Your task to perform on an android device: Clear the shopping cart on target.com. Search for logitech g pro on target.com, select the first entry, and add it to the cart. Image 0: 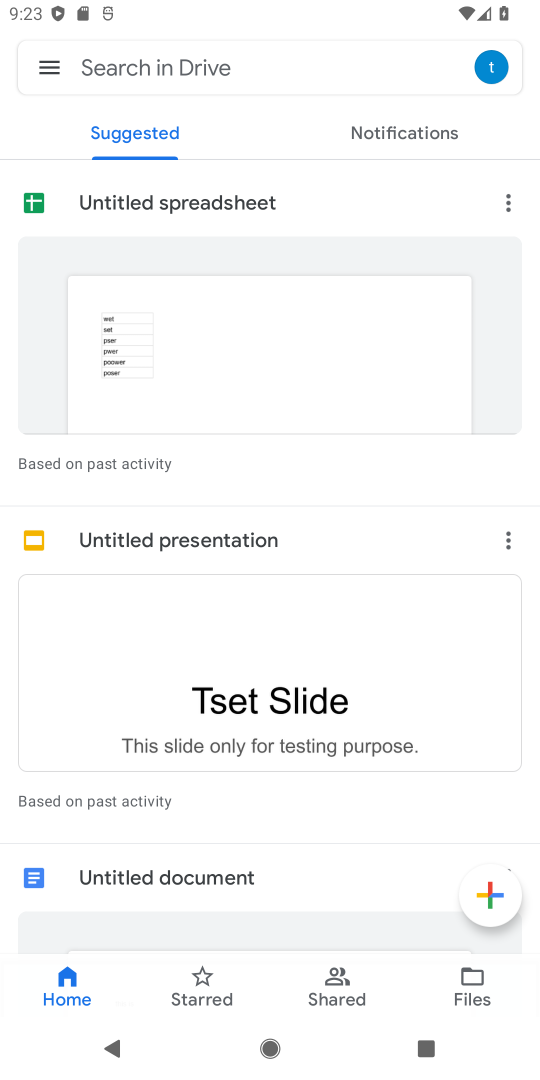
Step 0: press home button
Your task to perform on an android device: Clear the shopping cart on target.com. Search for logitech g pro on target.com, select the first entry, and add it to the cart. Image 1: 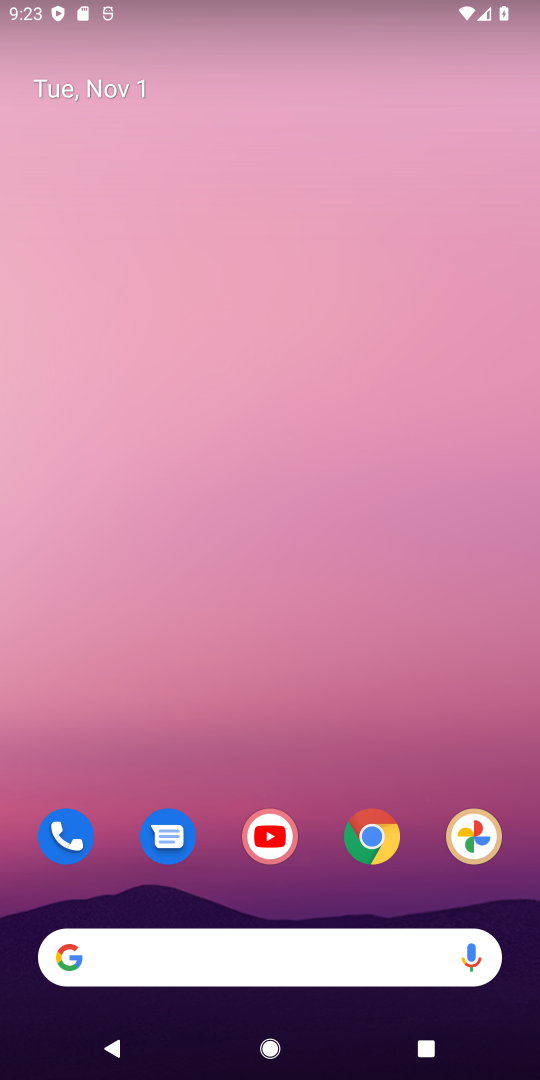
Step 1: click (381, 837)
Your task to perform on an android device: Clear the shopping cart on target.com. Search for logitech g pro on target.com, select the first entry, and add it to the cart. Image 2: 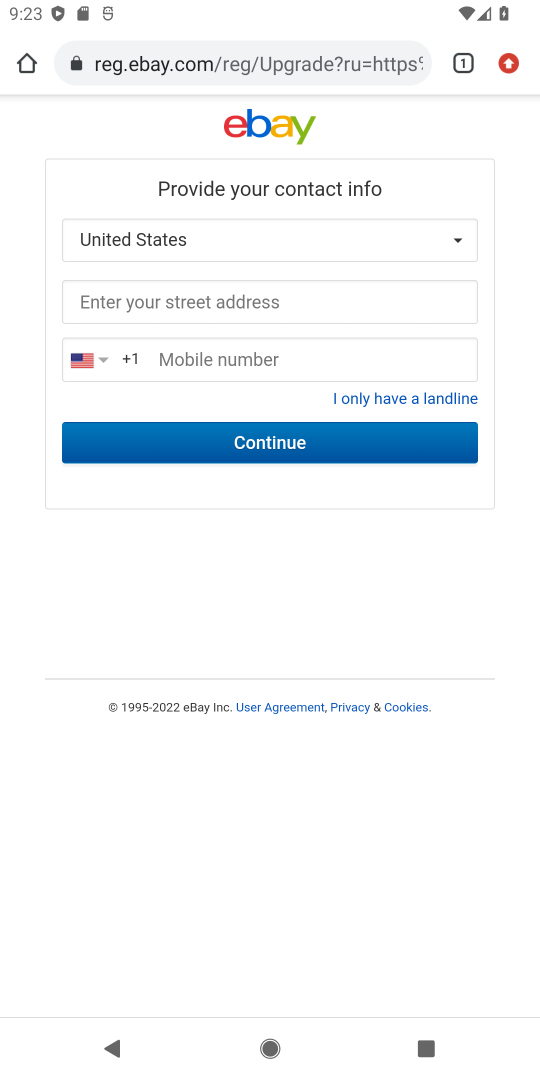
Step 2: click (177, 59)
Your task to perform on an android device: Clear the shopping cart on target.com. Search for logitech g pro on target.com, select the first entry, and add it to the cart. Image 3: 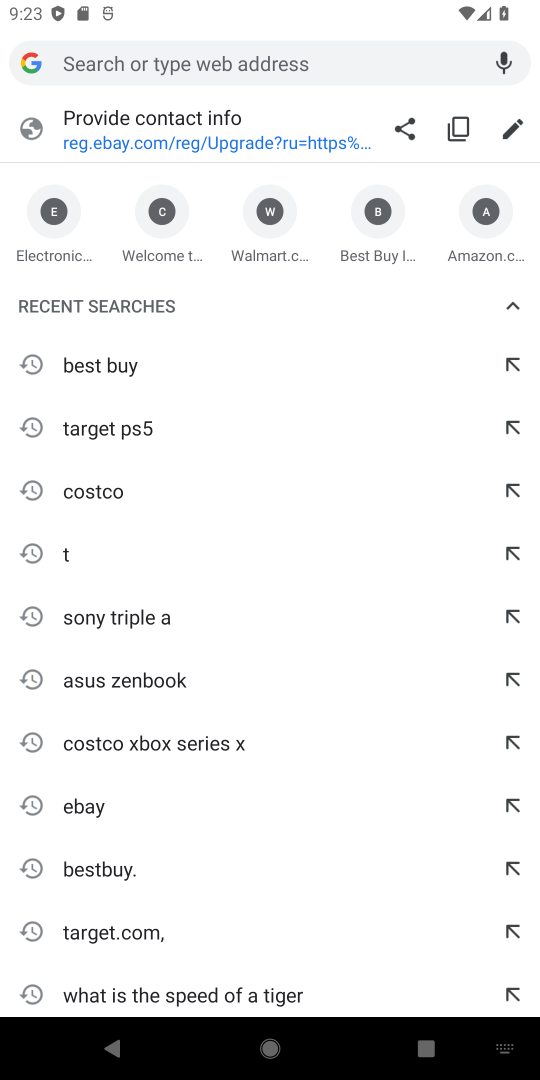
Step 3: type "target.com"
Your task to perform on an android device: Clear the shopping cart on target.com. Search for logitech g pro on target.com, select the first entry, and add it to the cart. Image 4: 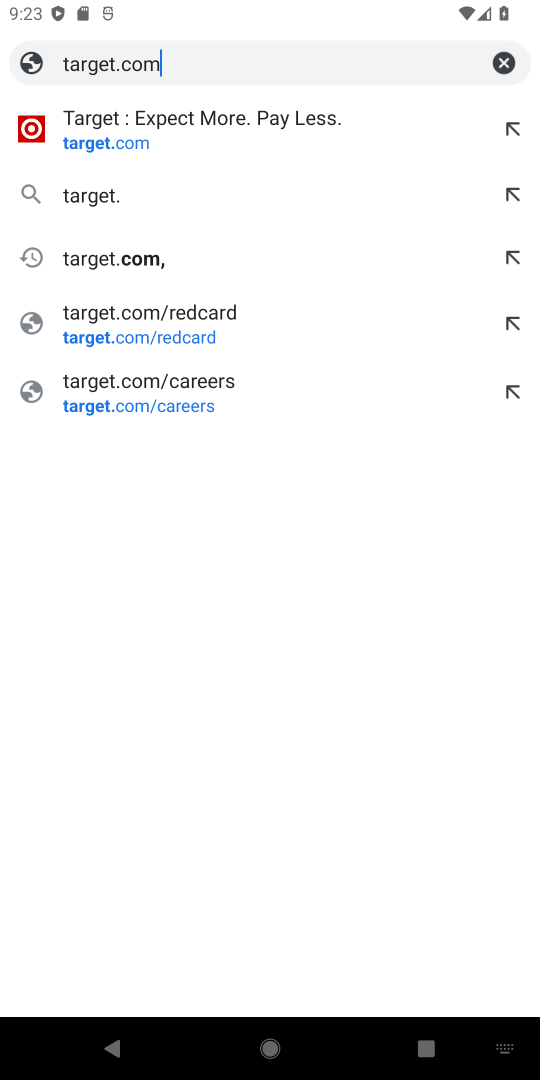
Step 4: type ""
Your task to perform on an android device: Clear the shopping cart on target.com. Search for logitech g pro on target.com, select the first entry, and add it to the cart. Image 5: 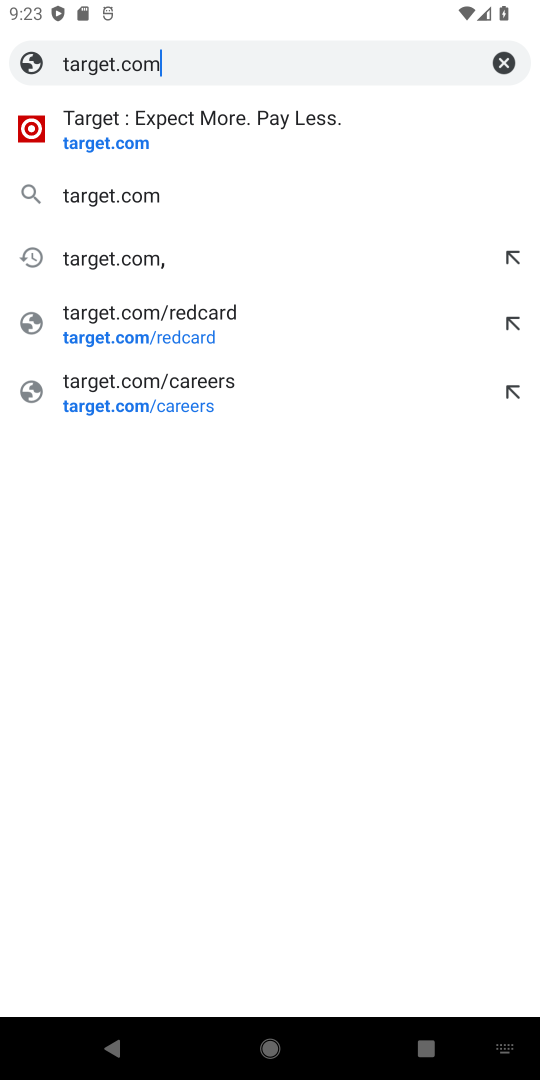
Step 5: click (260, 130)
Your task to perform on an android device: Clear the shopping cart on target.com. Search for logitech g pro on target.com, select the first entry, and add it to the cart. Image 6: 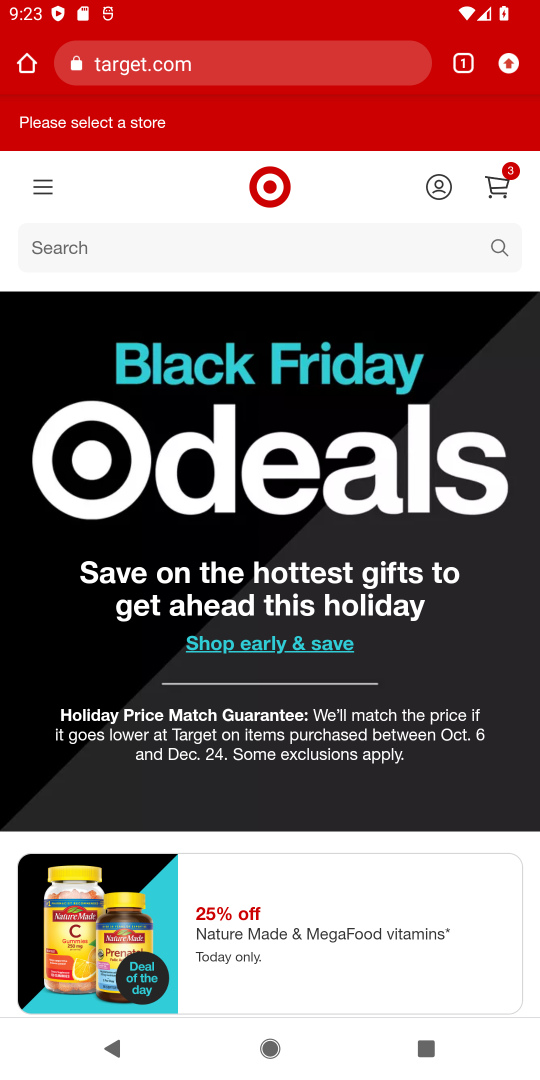
Step 6: click (362, 240)
Your task to perform on an android device: Clear the shopping cart on target.com. Search for logitech g pro on target.com, select the first entry, and add it to the cart. Image 7: 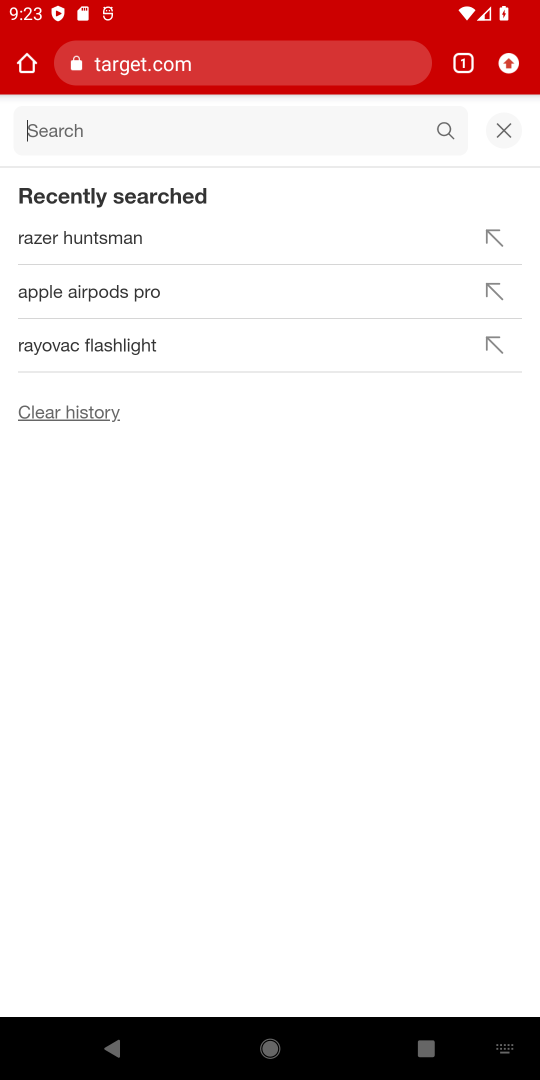
Step 7: type " logitech g pro"
Your task to perform on an android device: Clear the shopping cart on target.com. Search for logitech g pro on target.com, select the first entry, and add it to the cart. Image 8: 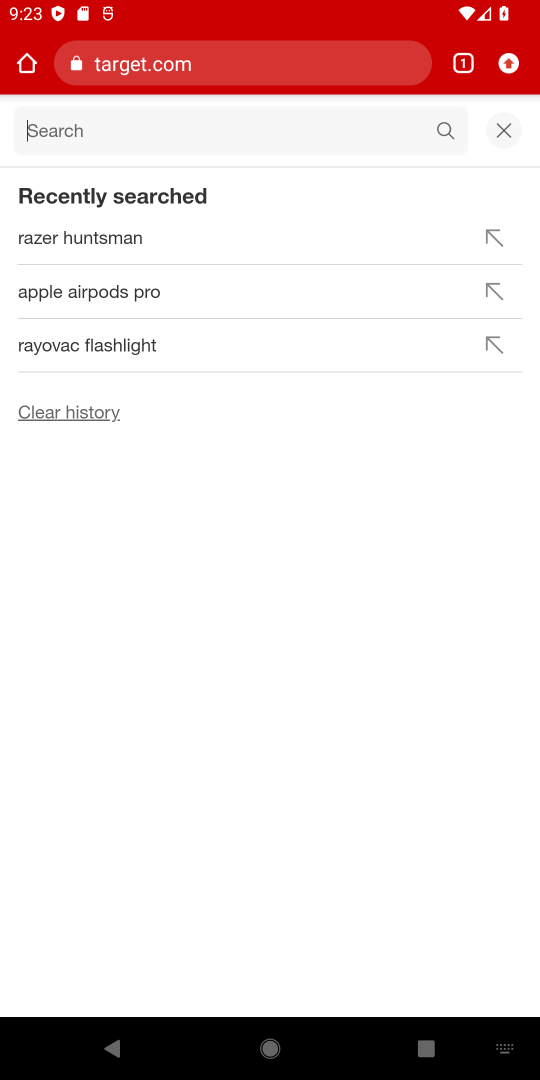
Step 8: type ""
Your task to perform on an android device: Clear the shopping cart on target.com. Search for logitech g pro on target.com, select the first entry, and add it to the cart. Image 9: 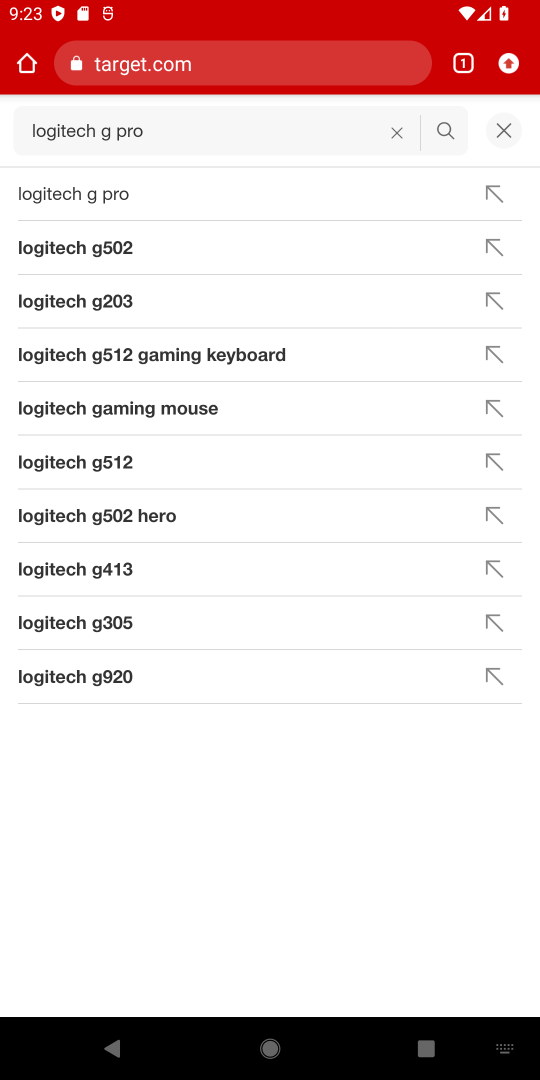
Step 9: click (91, 202)
Your task to perform on an android device: Clear the shopping cart on target.com. Search for logitech g pro on target.com, select the first entry, and add it to the cart. Image 10: 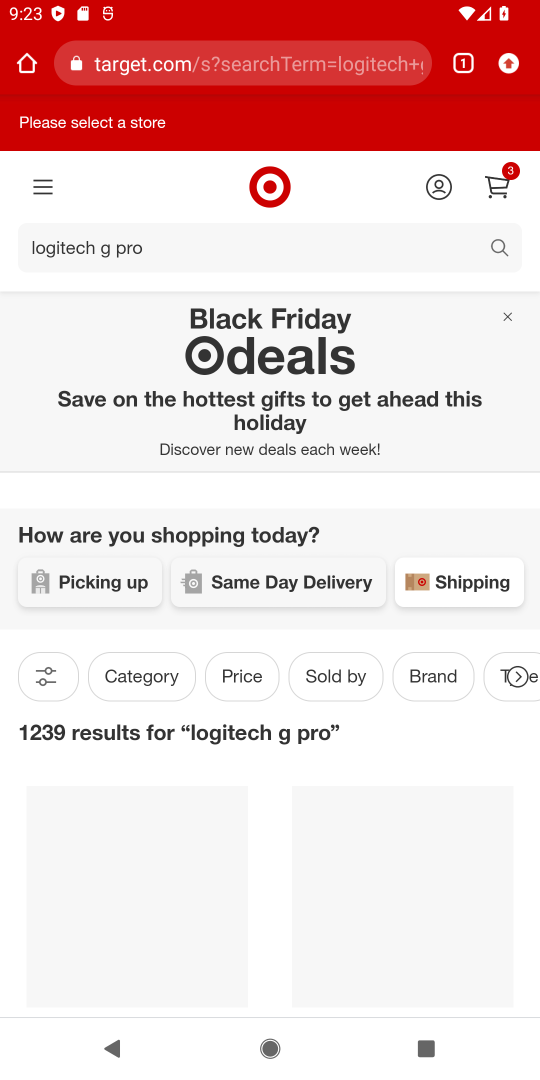
Step 10: drag from (238, 766) to (264, 385)
Your task to perform on an android device: Clear the shopping cart on target.com. Search for logitech g pro on target.com, select the first entry, and add it to the cart. Image 11: 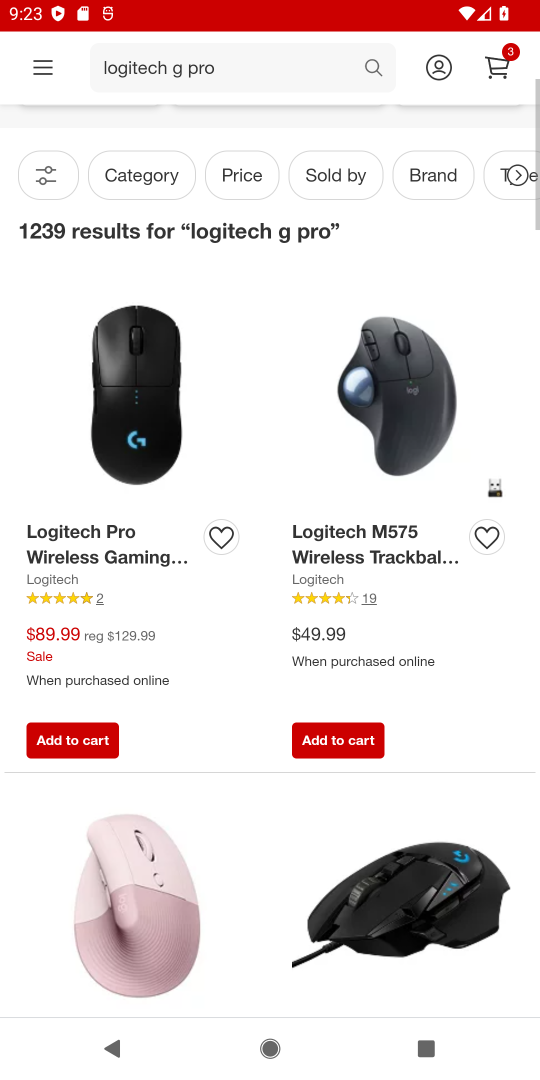
Step 11: click (148, 453)
Your task to perform on an android device: Clear the shopping cart on target.com. Search for logitech g pro on target.com, select the first entry, and add it to the cart. Image 12: 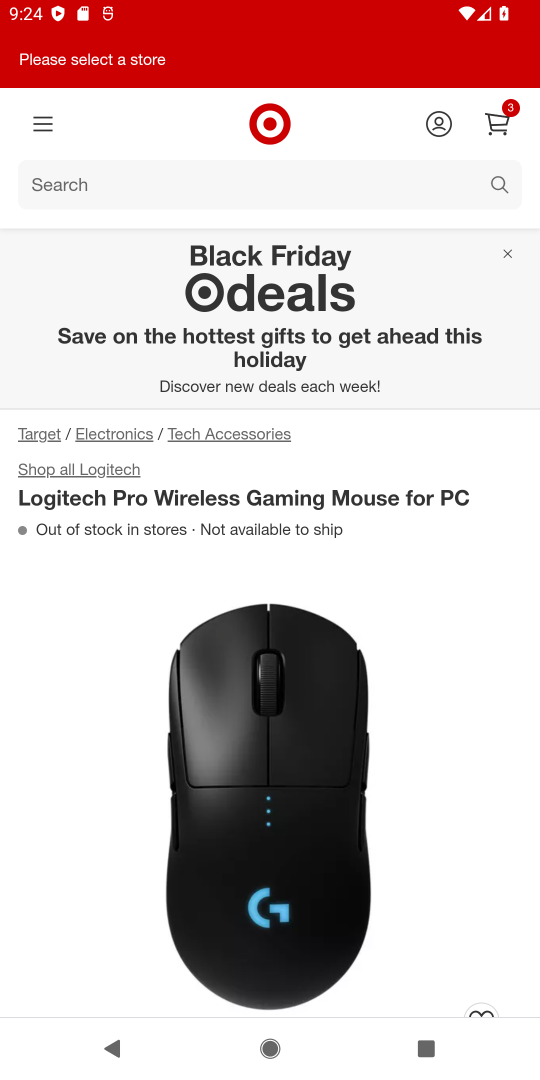
Step 12: drag from (212, 736) to (224, 371)
Your task to perform on an android device: Clear the shopping cart on target.com. Search for logitech g pro on target.com, select the first entry, and add it to the cart. Image 13: 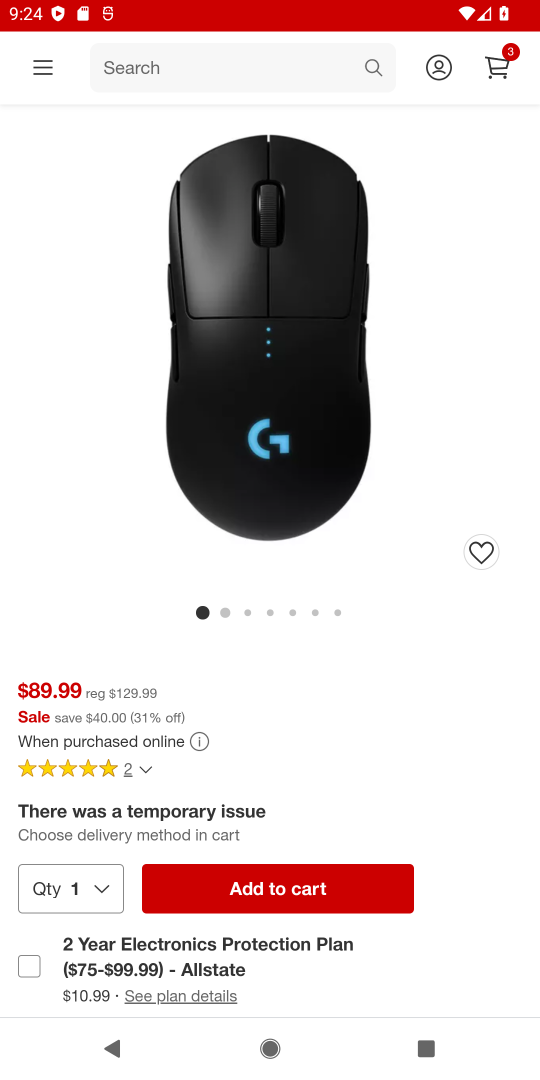
Step 13: click (242, 879)
Your task to perform on an android device: Clear the shopping cart on target.com. Search for logitech g pro on target.com, select the first entry, and add it to the cart. Image 14: 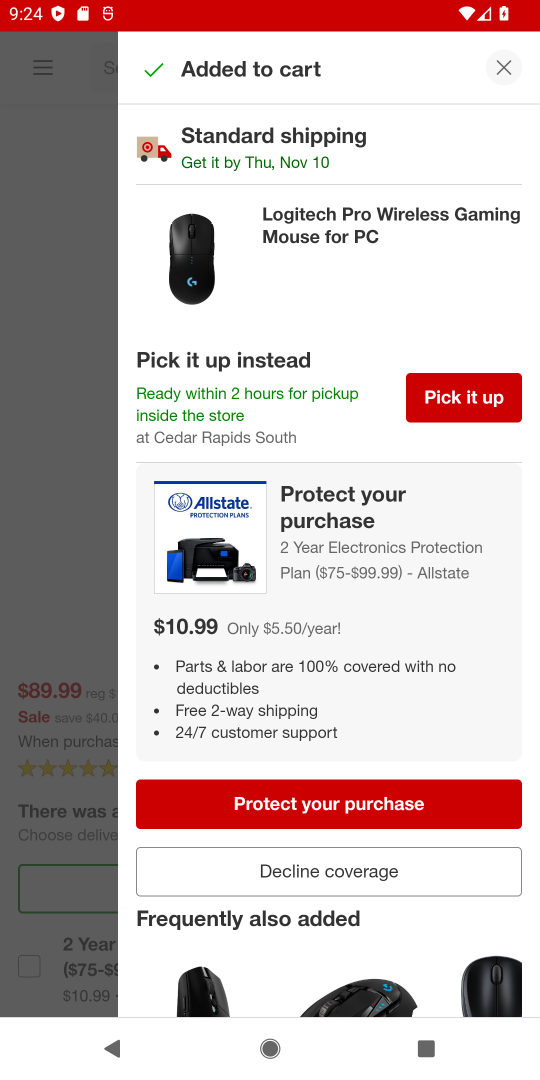
Step 14: click (271, 871)
Your task to perform on an android device: Clear the shopping cart on target.com. Search for logitech g pro on target.com, select the first entry, and add it to the cart. Image 15: 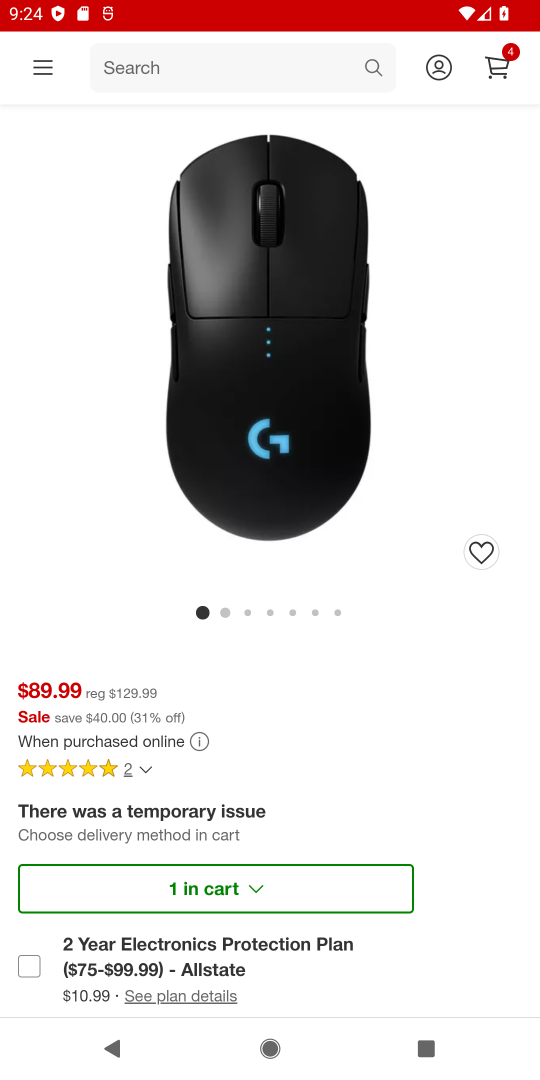
Step 15: click (506, 62)
Your task to perform on an android device: Clear the shopping cart on target.com. Search for logitech g pro on target.com, select the first entry, and add it to the cart. Image 16: 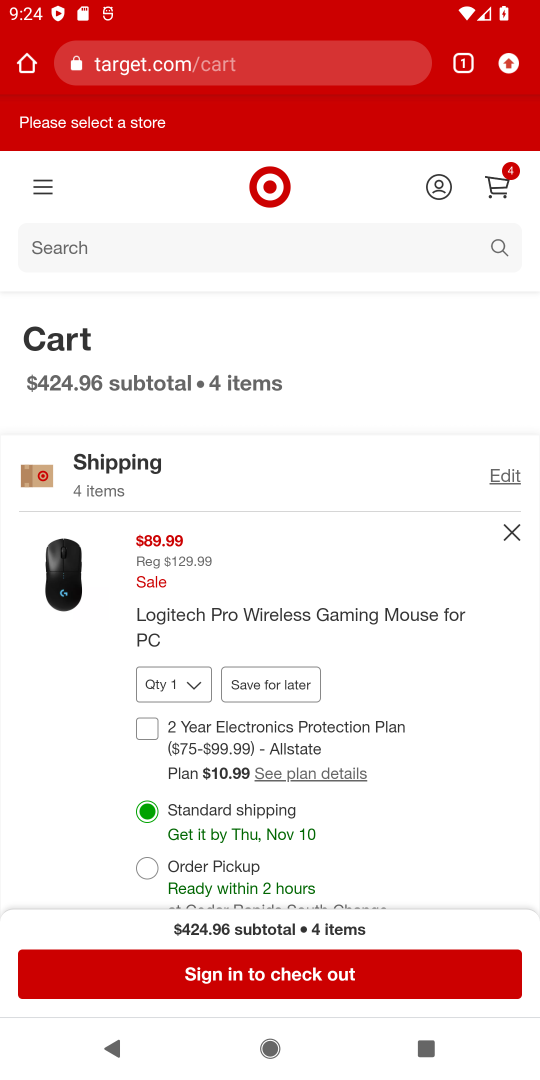
Step 16: drag from (352, 739) to (383, 234)
Your task to perform on an android device: Clear the shopping cart on target.com. Search for logitech g pro on target.com, select the first entry, and add it to the cart. Image 17: 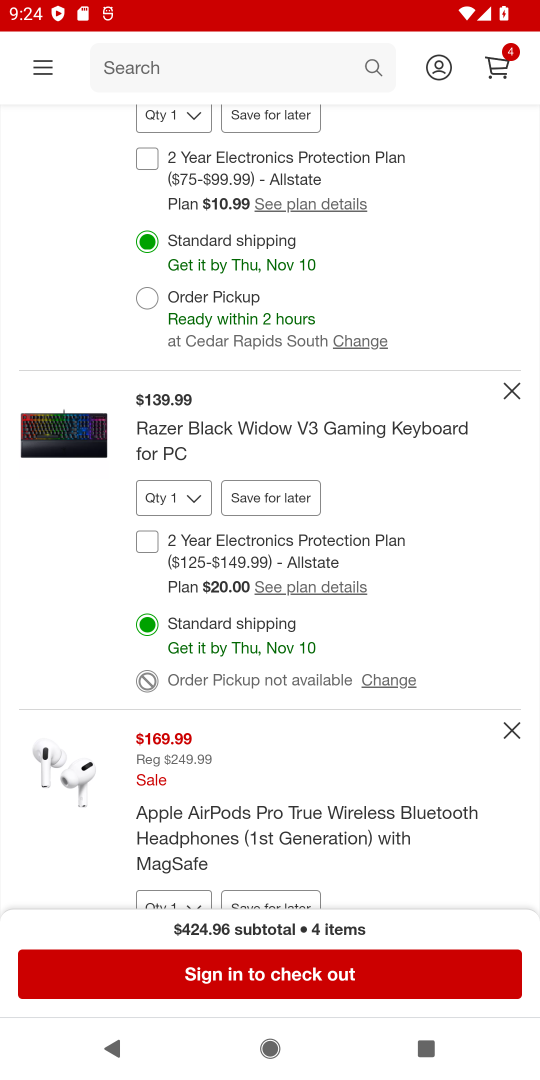
Step 17: click (509, 397)
Your task to perform on an android device: Clear the shopping cart on target.com. Search for logitech g pro on target.com, select the first entry, and add it to the cart. Image 18: 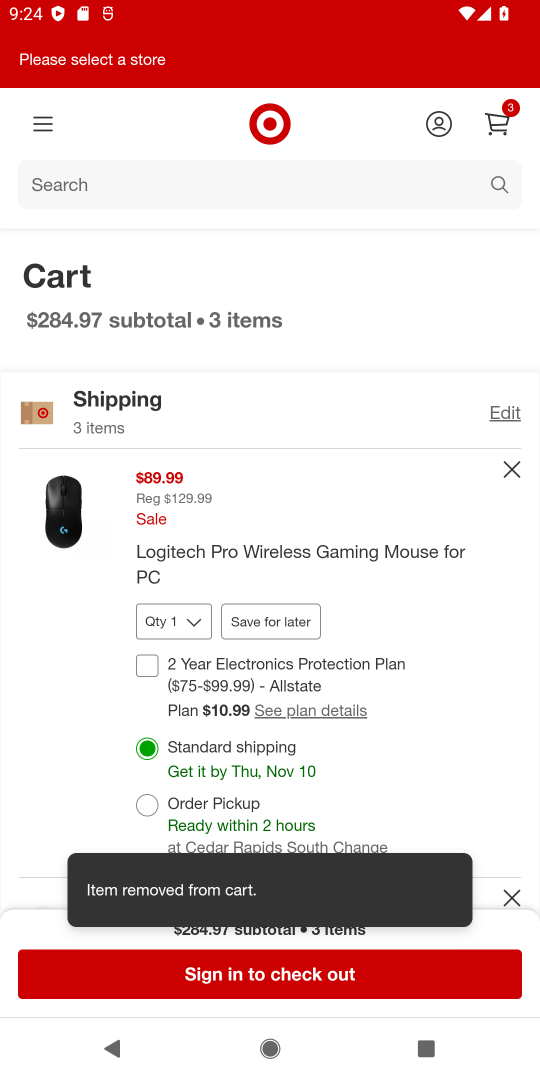
Step 18: drag from (433, 695) to (442, 205)
Your task to perform on an android device: Clear the shopping cart on target.com. Search for logitech g pro on target.com, select the first entry, and add it to the cart. Image 19: 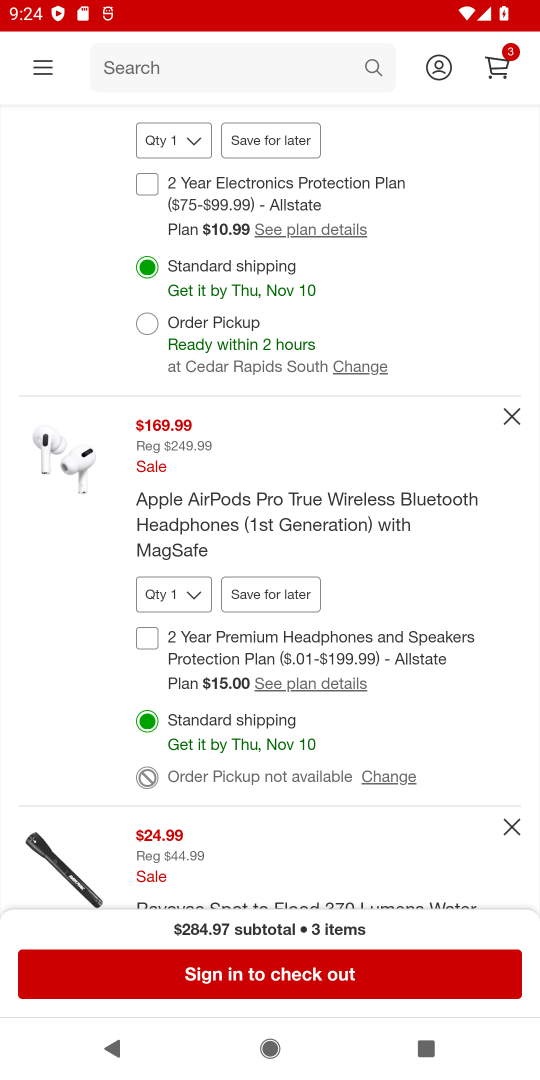
Step 19: click (507, 406)
Your task to perform on an android device: Clear the shopping cart on target.com. Search for logitech g pro on target.com, select the first entry, and add it to the cart. Image 20: 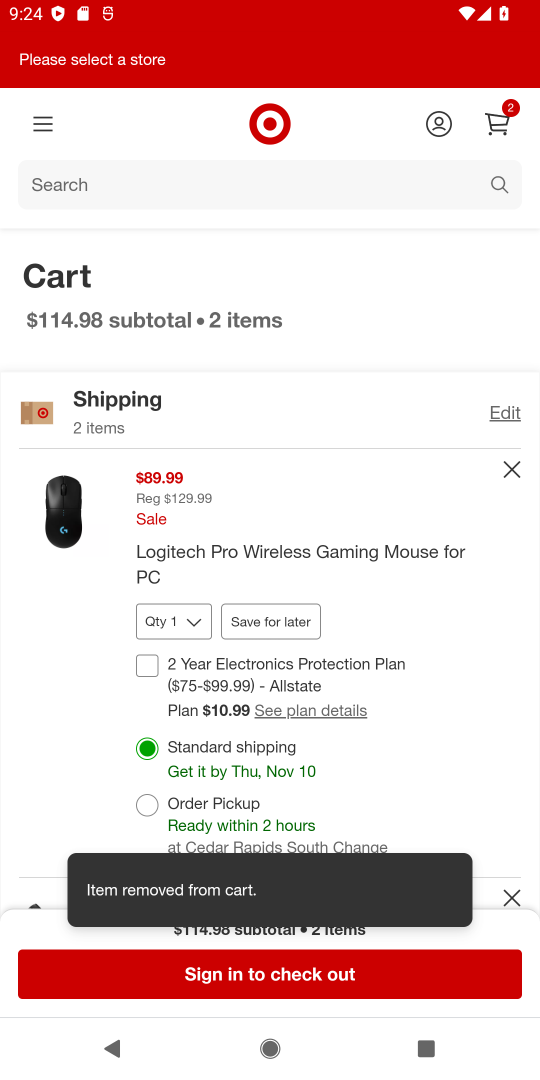
Step 20: click (516, 896)
Your task to perform on an android device: Clear the shopping cart on target.com. Search for logitech g pro on target.com, select the first entry, and add it to the cart. Image 21: 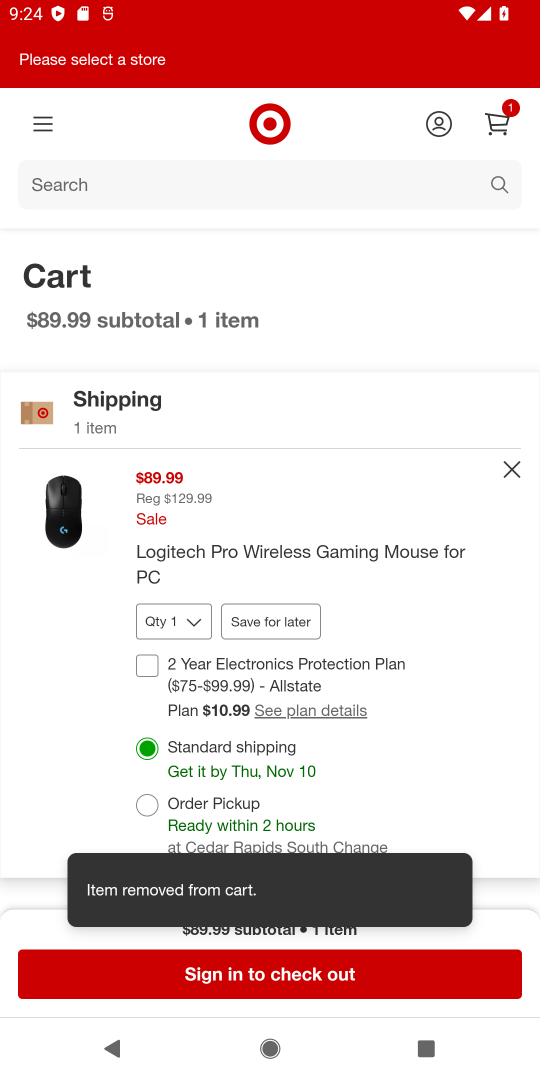
Step 21: drag from (368, 845) to (313, 262)
Your task to perform on an android device: Clear the shopping cart on target.com. Search for logitech g pro on target.com, select the first entry, and add it to the cart. Image 22: 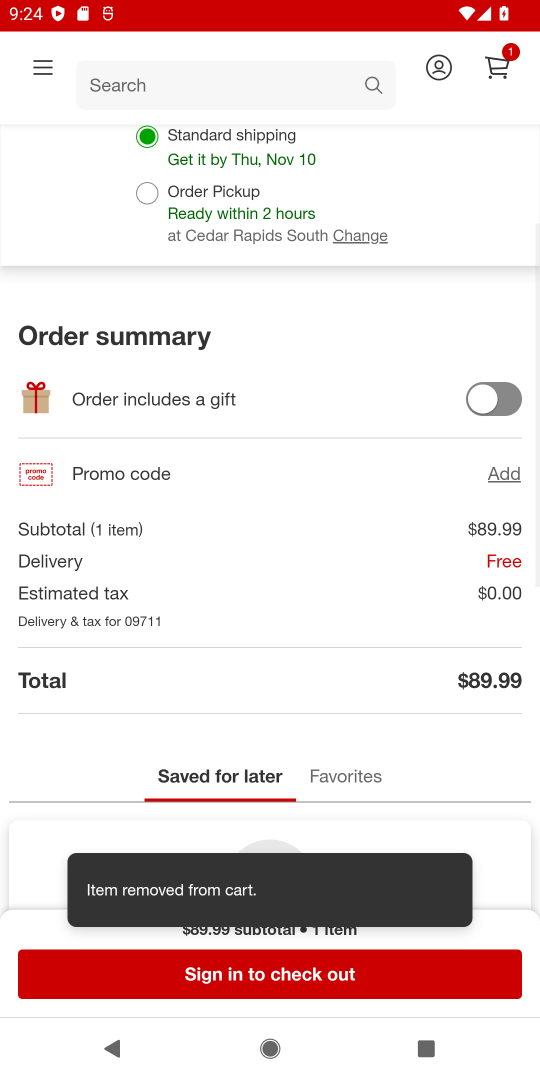
Step 22: click (290, 972)
Your task to perform on an android device: Clear the shopping cart on target.com. Search for logitech g pro on target.com, select the first entry, and add it to the cart. Image 23: 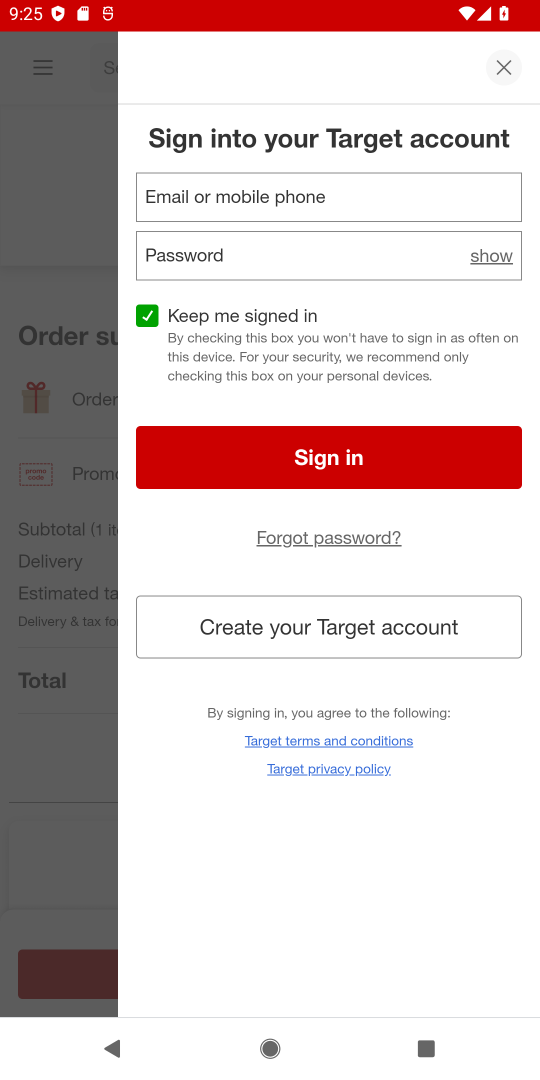
Step 23: click (501, 73)
Your task to perform on an android device: Clear the shopping cart on target.com. Search for logitech g pro on target.com, select the first entry, and add it to the cart. Image 24: 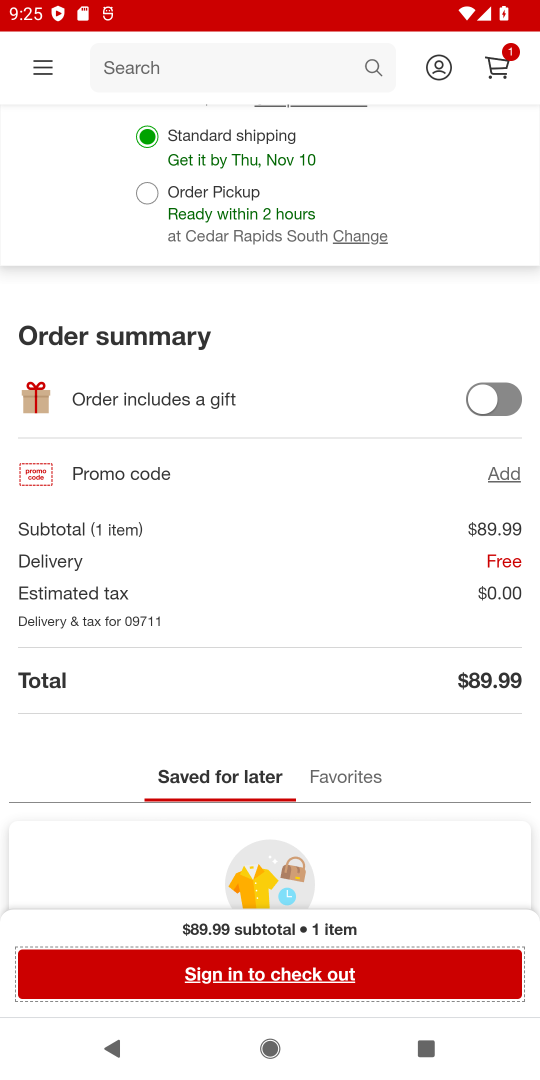
Step 24: click (281, 971)
Your task to perform on an android device: Clear the shopping cart on target.com. Search for logitech g pro on target.com, select the first entry, and add it to the cart. Image 25: 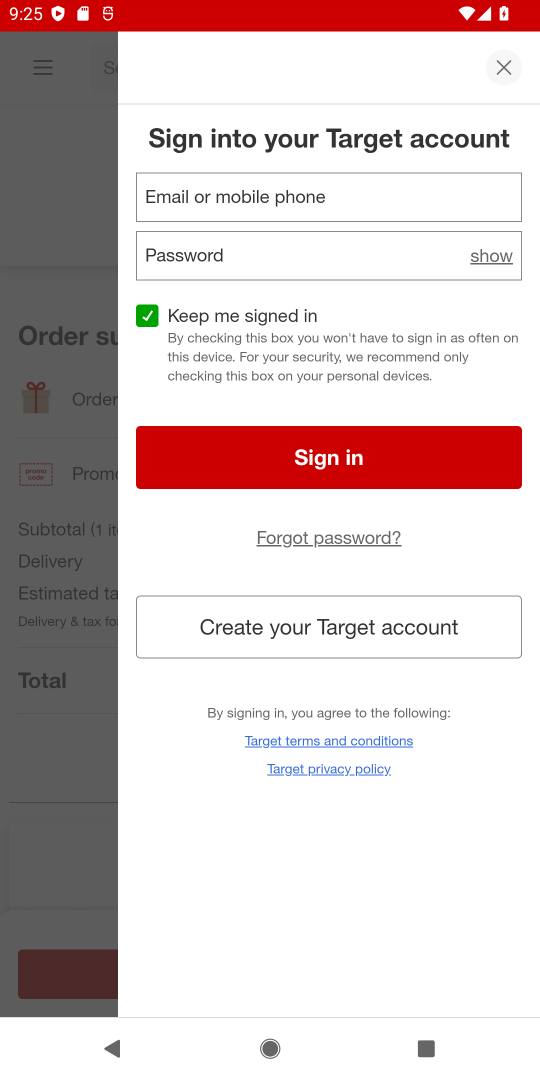
Step 25: task complete